Your task to perform on an android device: Open eBay Image 0: 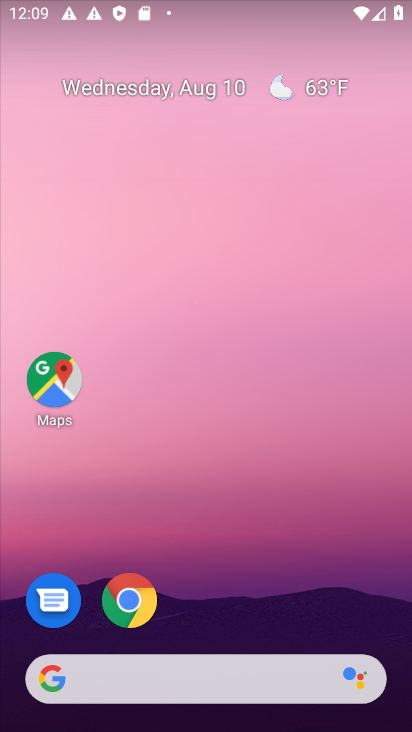
Step 0: click (127, 601)
Your task to perform on an android device: Open eBay Image 1: 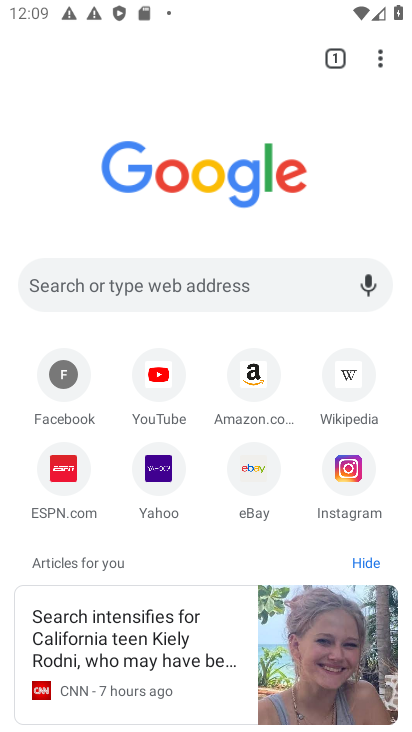
Step 1: click (255, 482)
Your task to perform on an android device: Open eBay Image 2: 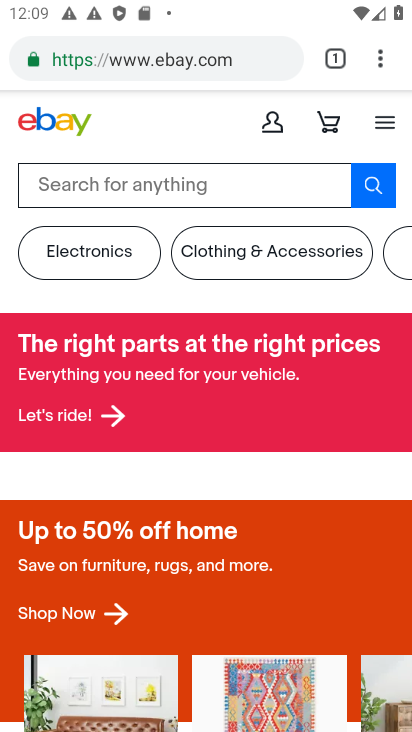
Step 2: task complete